Your task to perform on an android device: Open privacy settings Image 0: 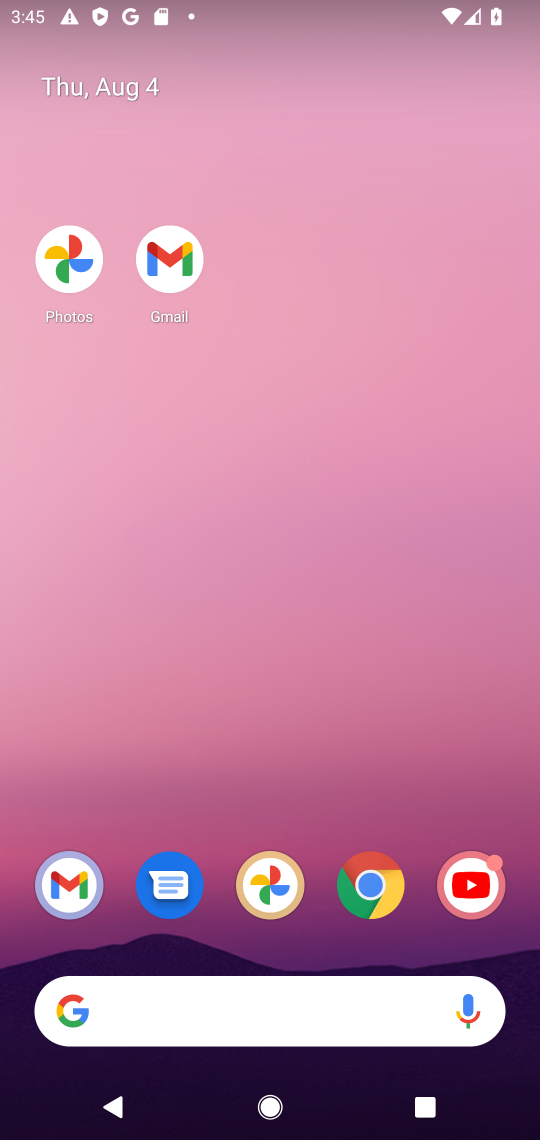
Step 0: drag from (286, 779) to (251, 220)
Your task to perform on an android device: Open privacy settings Image 1: 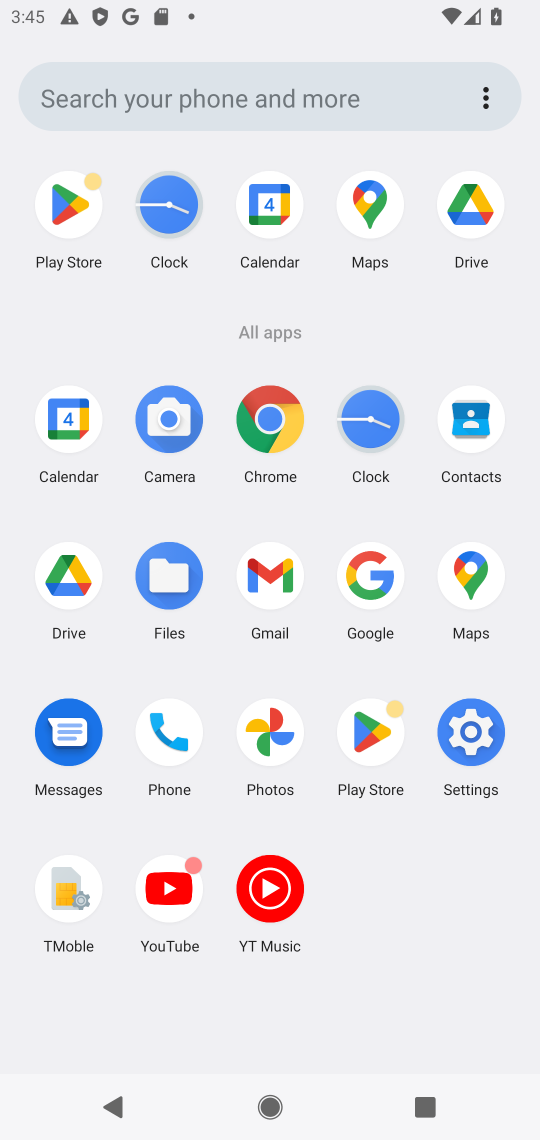
Step 1: drag from (454, 733) to (321, 340)
Your task to perform on an android device: Open privacy settings Image 2: 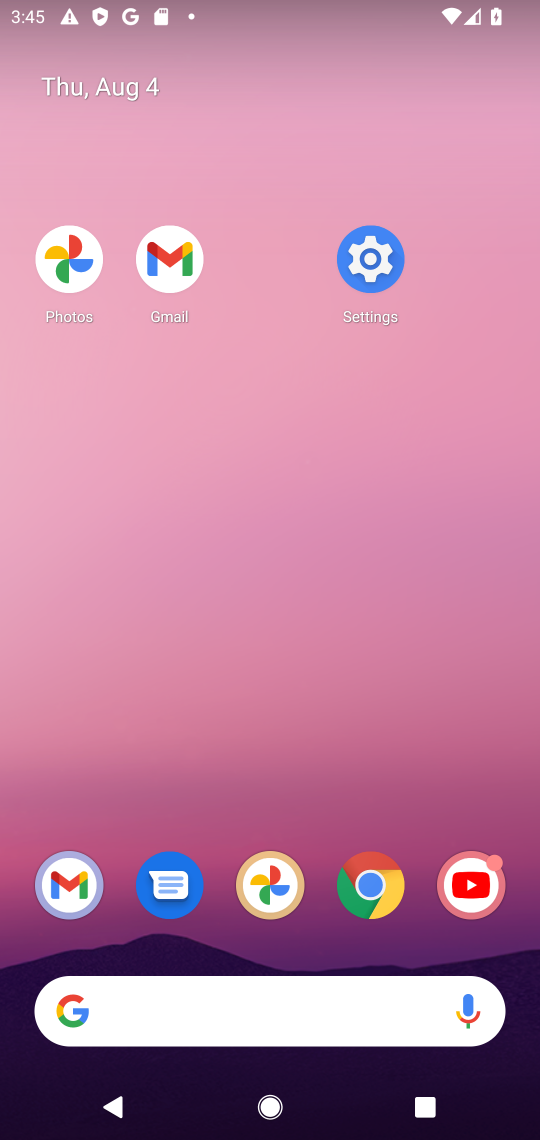
Step 2: click (396, 258)
Your task to perform on an android device: Open privacy settings Image 3: 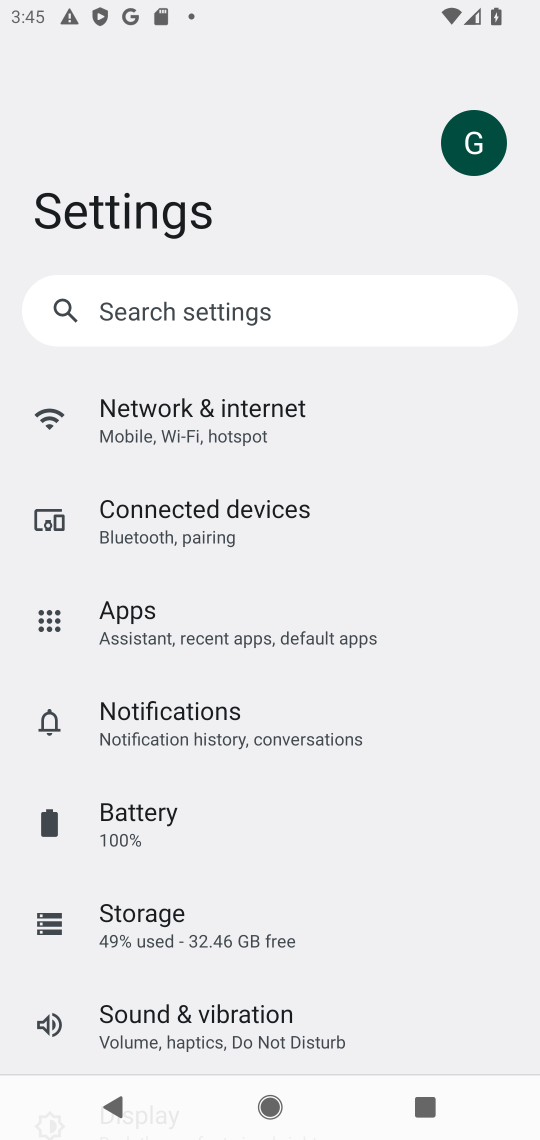
Step 3: drag from (277, 785) to (310, 354)
Your task to perform on an android device: Open privacy settings Image 4: 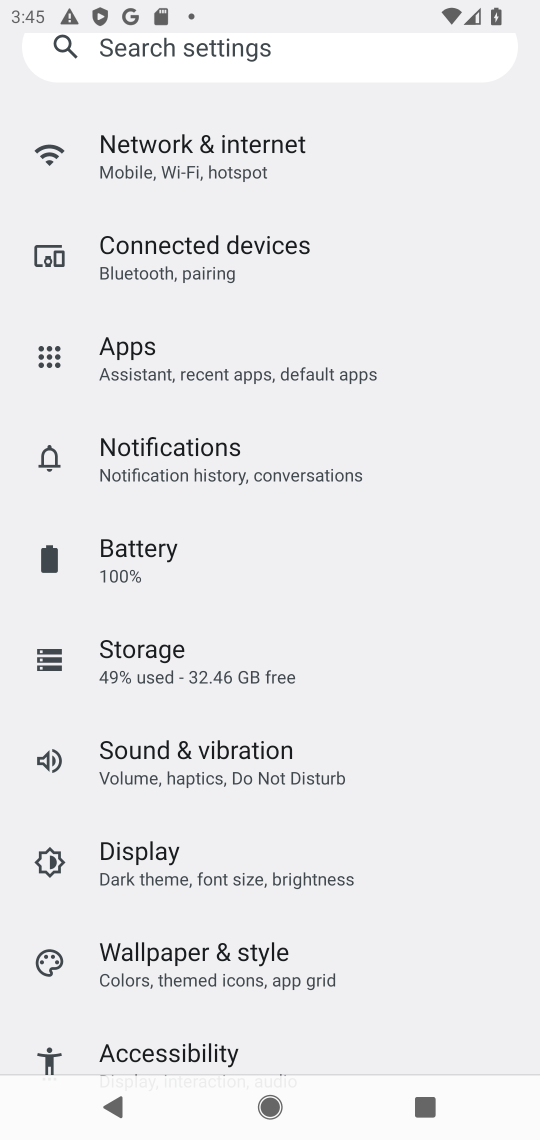
Step 4: drag from (320, 387) to (287, 942)
Your task to perform on an android device: Open privacy settings Image 5: 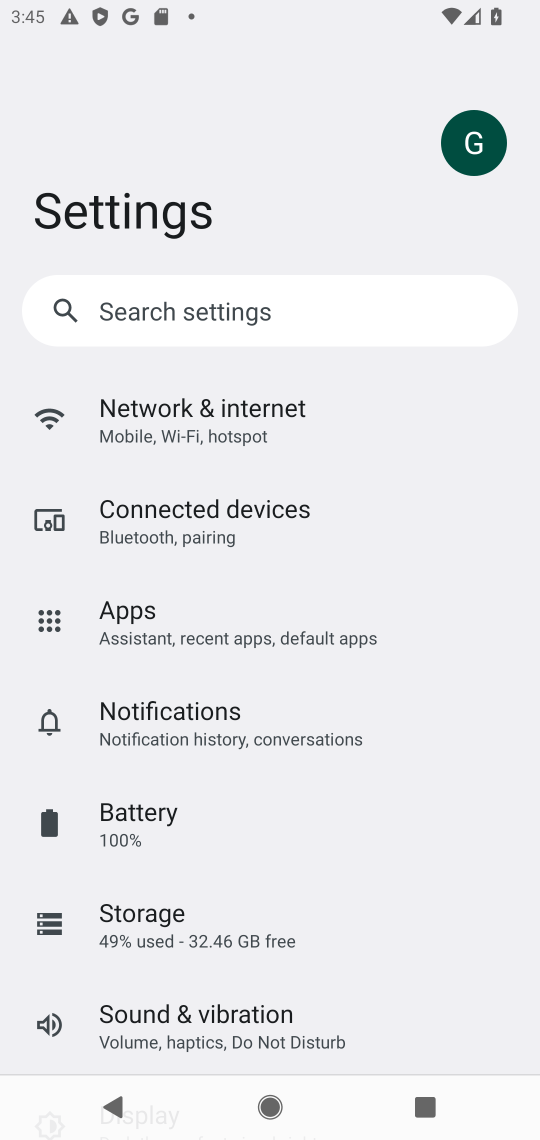
Step 5: drag from (286, 942) to (310, 382)
Your task to perform on an android device: Open privacy settings Image 6: 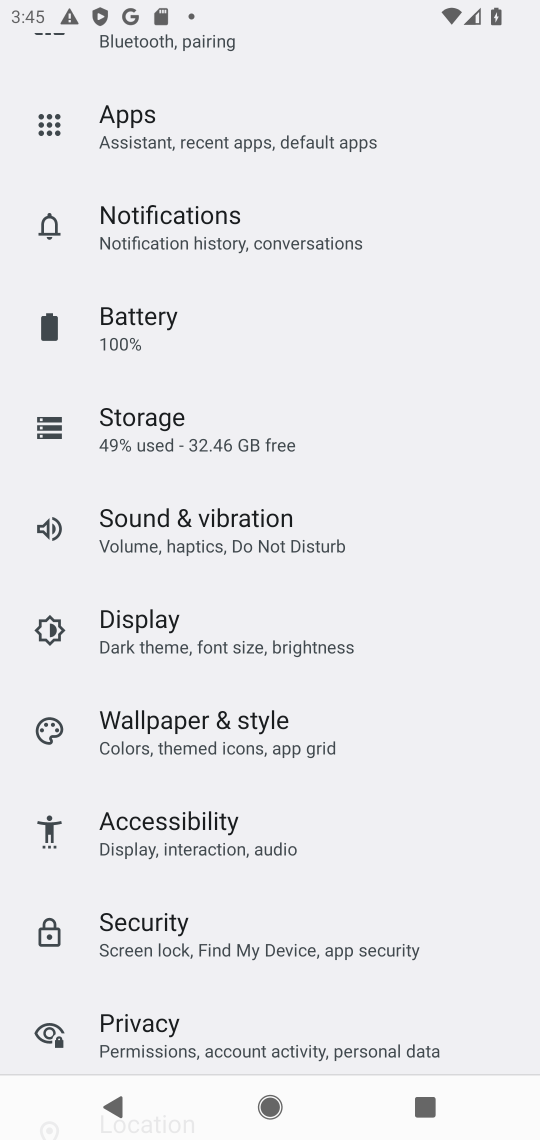
Step 6: drag from (264, 942) to (329, 402)
Your task to perform on an android device: Open privacy settings Image 7: 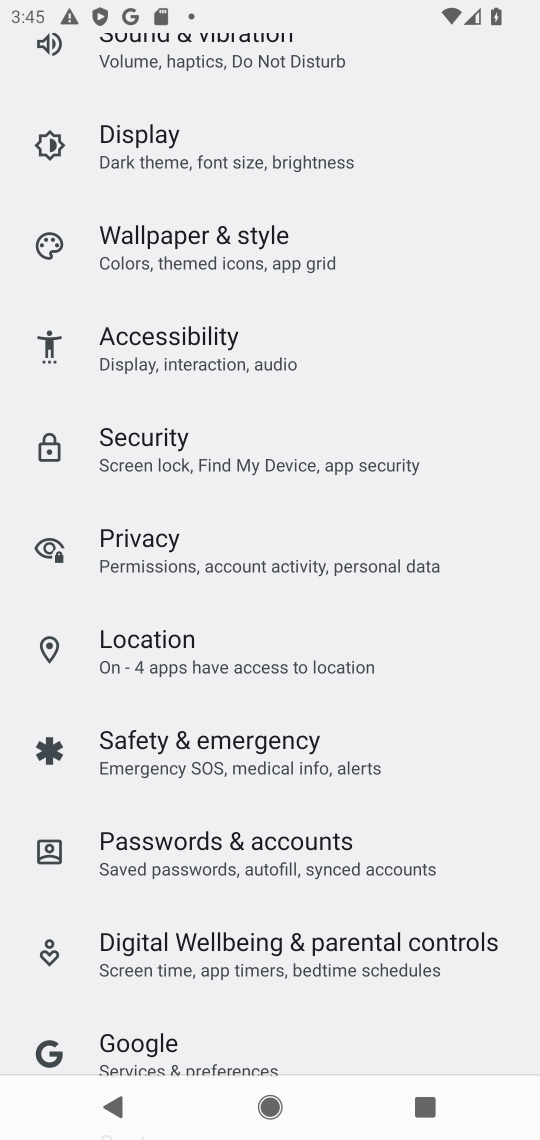
Step 7: click (279, 544)
Your task to perform on an android device: Open privacy settings Image 8: 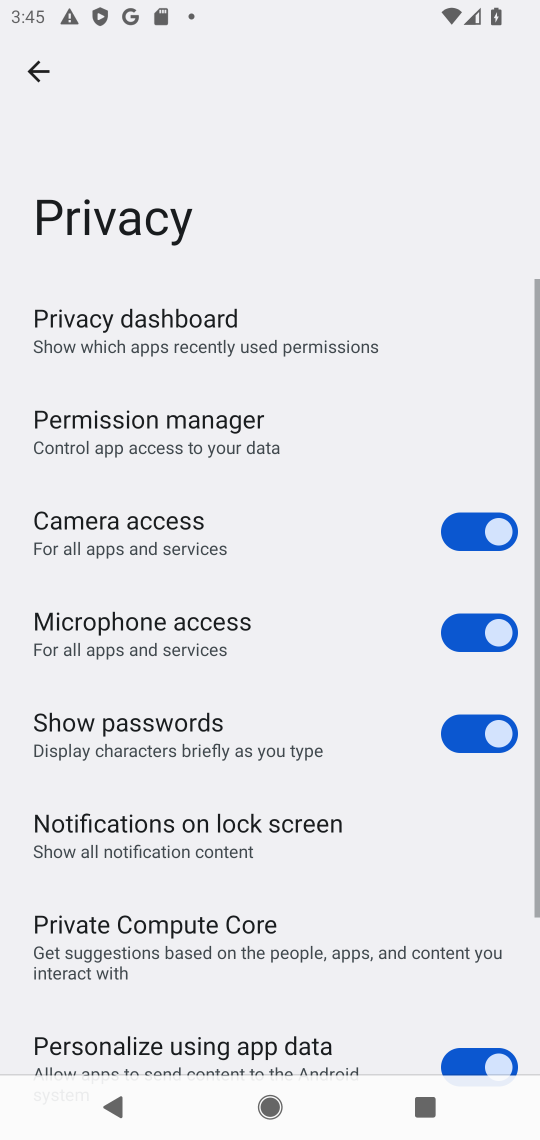
Step 8: task complete